Your task to perform on an android device: Check the settings for the Spotify app Image 0: 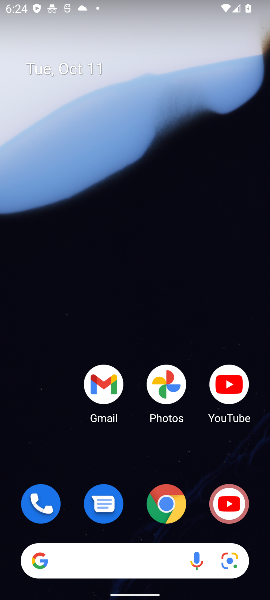
Step 0: drag from (132, 450) to (170, 100)
Your task to perform on an android device: Check the settings for the Spotify app Image 1: 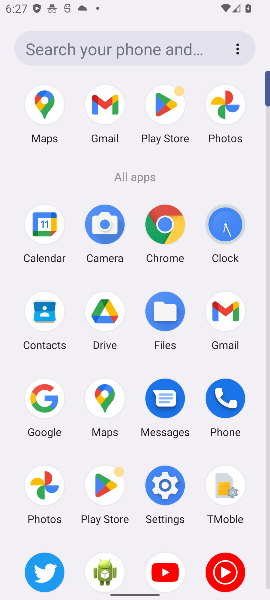
Step 1: task complete